Your task to perform on an android device: turn pop-ups off in chrome Image 0: 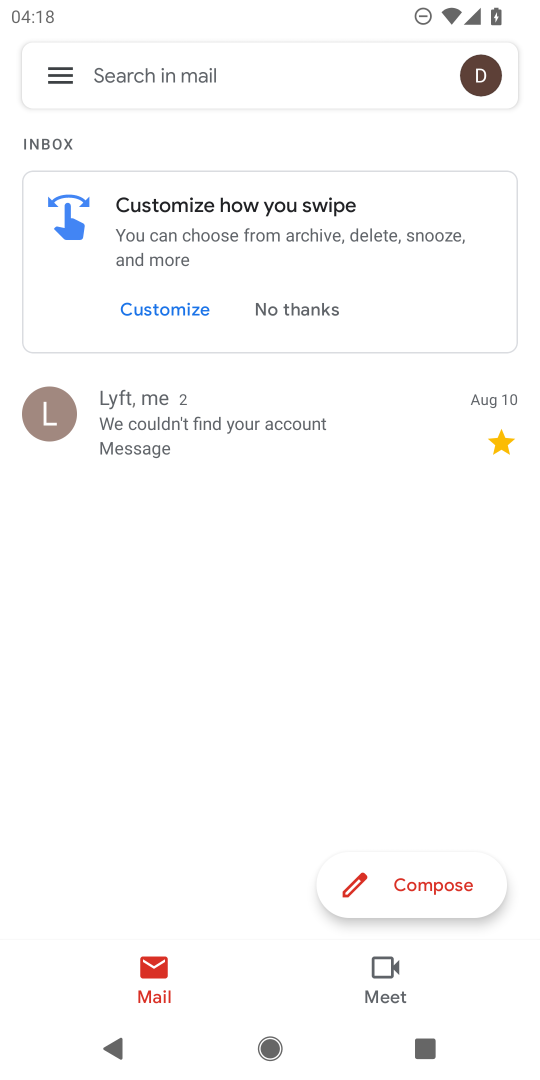
Step 0: press home button
Your task to perform on an android device: turn pop-ups off in chrome Image 1: 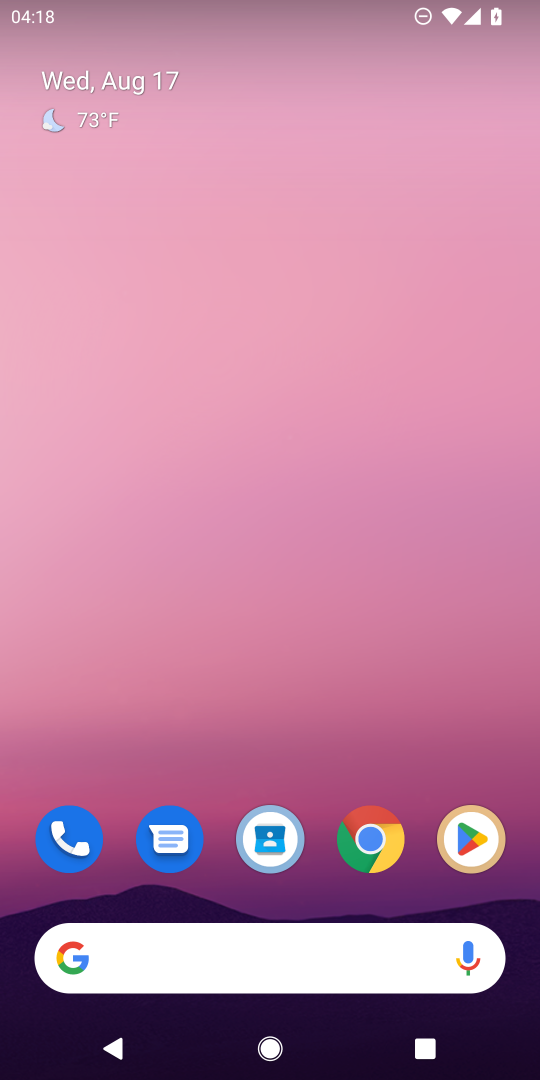
Step 1: drag from (313, 846) to (243, 63)
Your task to perform on an android device: turn pop-ups off in chrome Image 2: 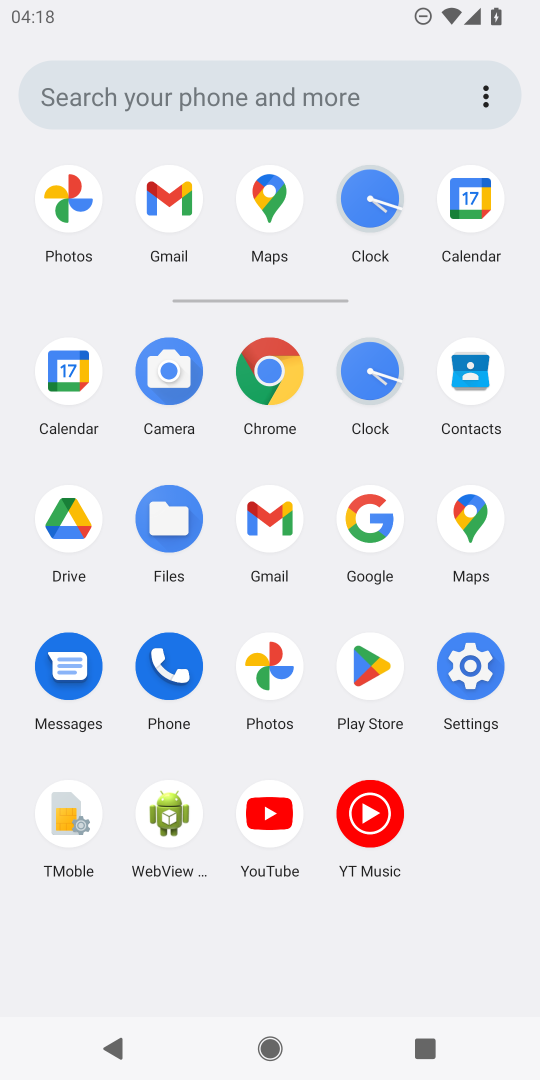
Step 2: click (263, 364)
Your task to perform on an android device: turn pop-ups off in chrome Image 3: 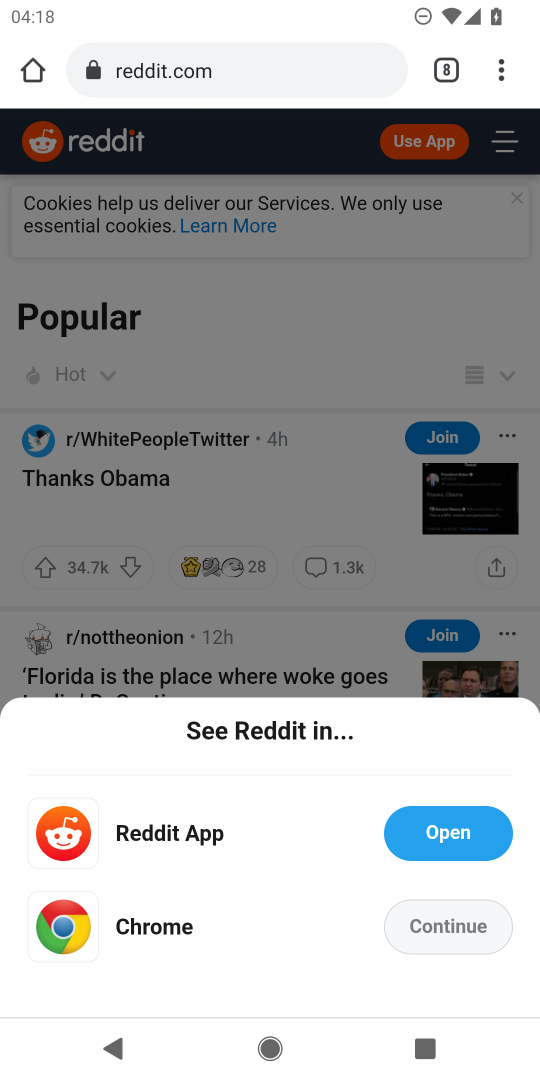
Step 3: click (500, 77)
Your task to perform on an android device: turn pop-ups off in chrome Image 4: 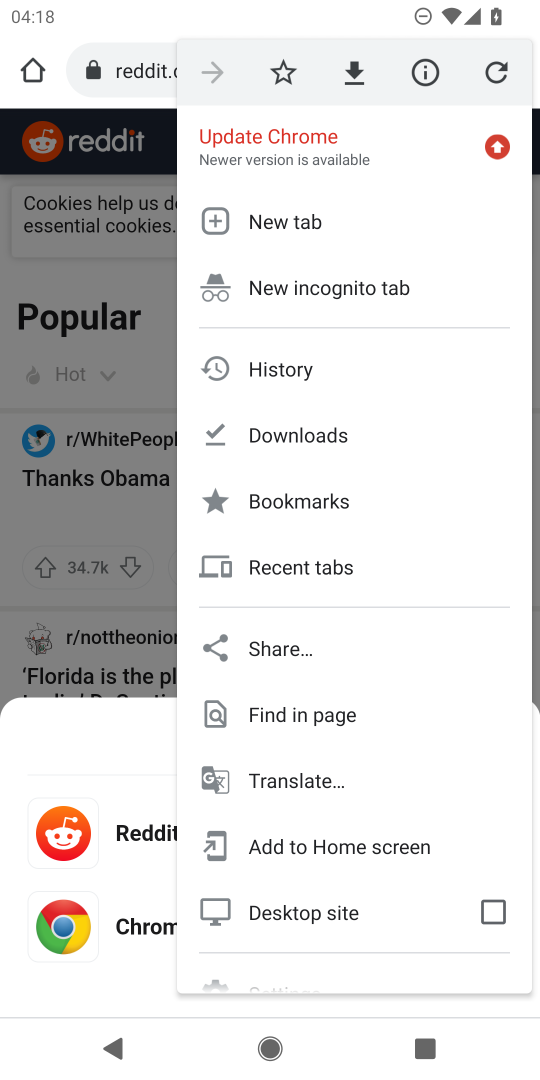
Step 4: drag from (282, 941) to (228, 337)
Your task to perform on an android device: turn pop-ups off in chrome Image 5: 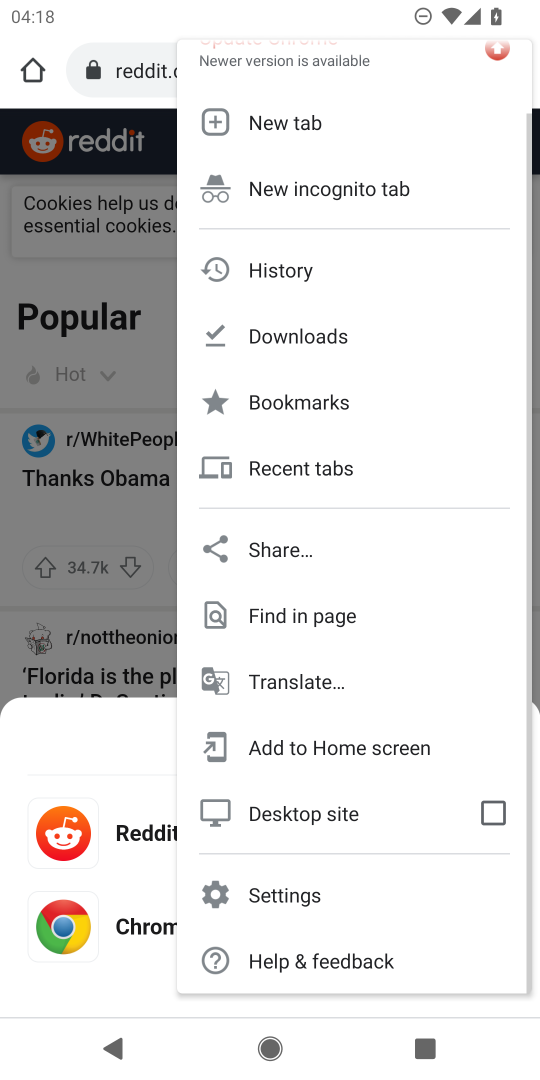
Step 5: click (257, 893)
Your task to perform on an android device: turn pop-ups off in chrome Image 6: 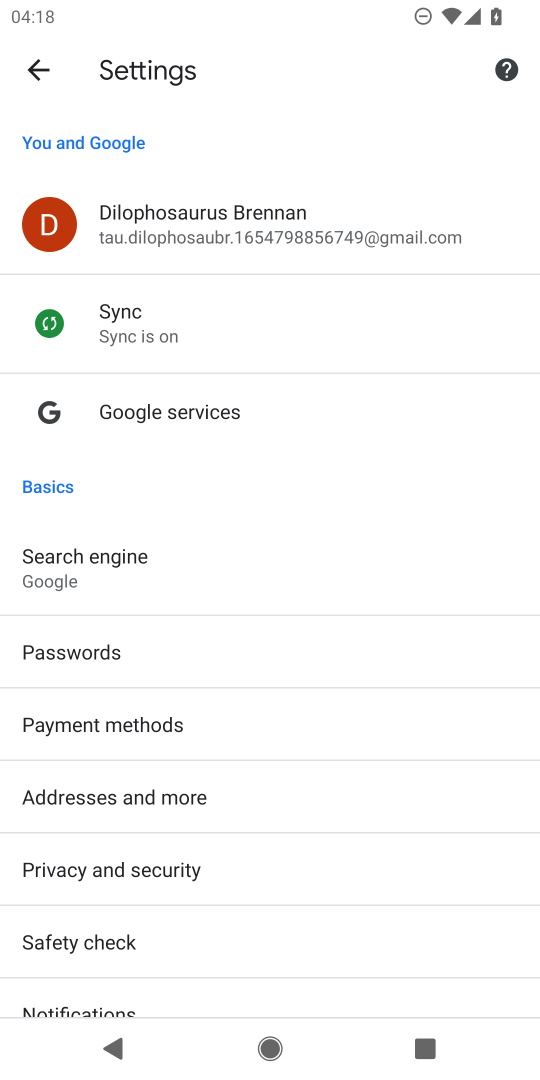
Step 6: drag from (187, 911) to (206, 394)
Your task to perform on an android device: turn pop-ups off in chrome Image 7: 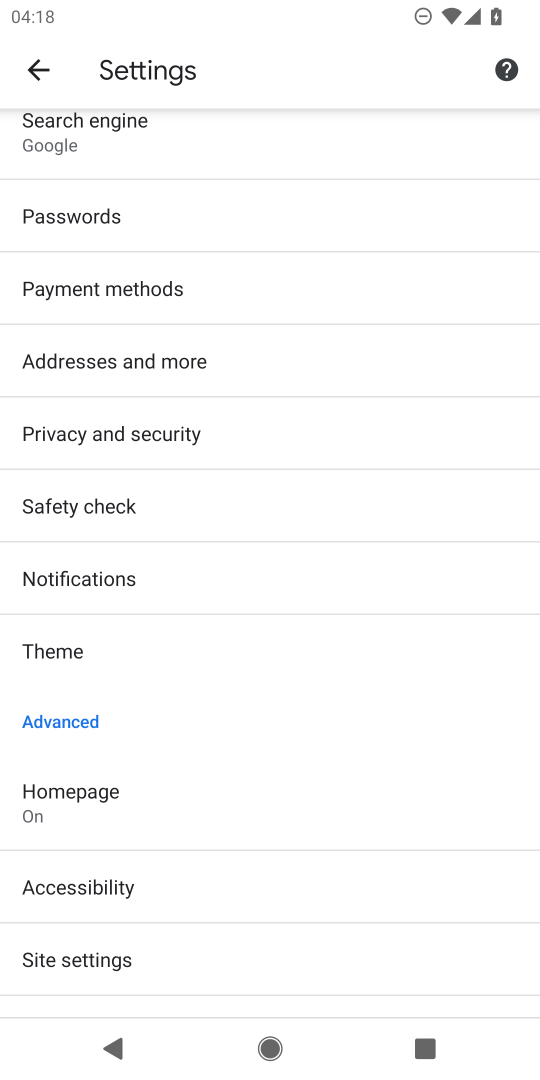
Step 7: drag from (114, 894) to (104, 457)
Your task to perform on an android device: turn pop-ups off in chrome Image 8: 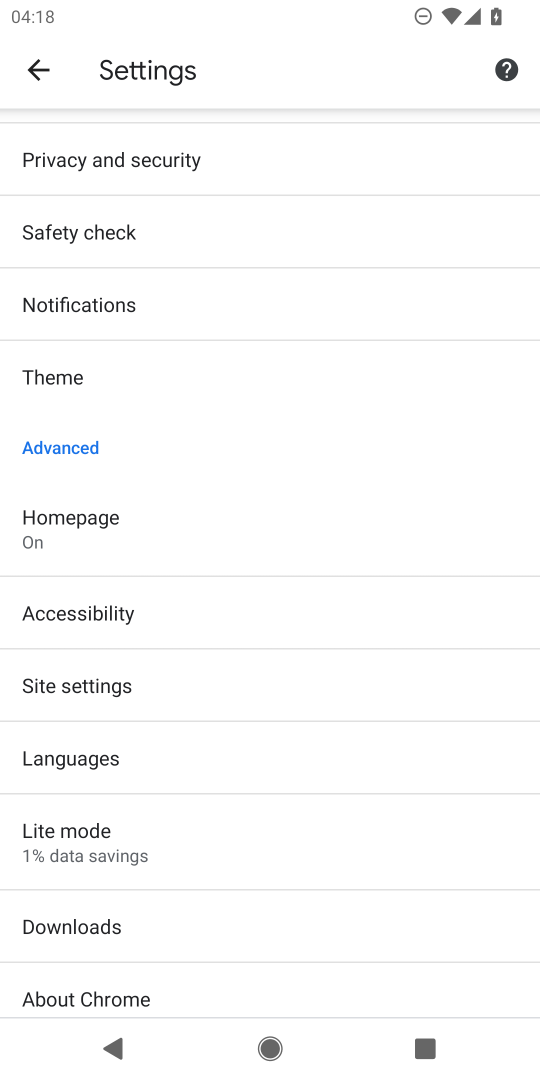
Step 8: click (101, 688)
Your task to perform on an android device: turn pop-ups off in chrome Image 9: 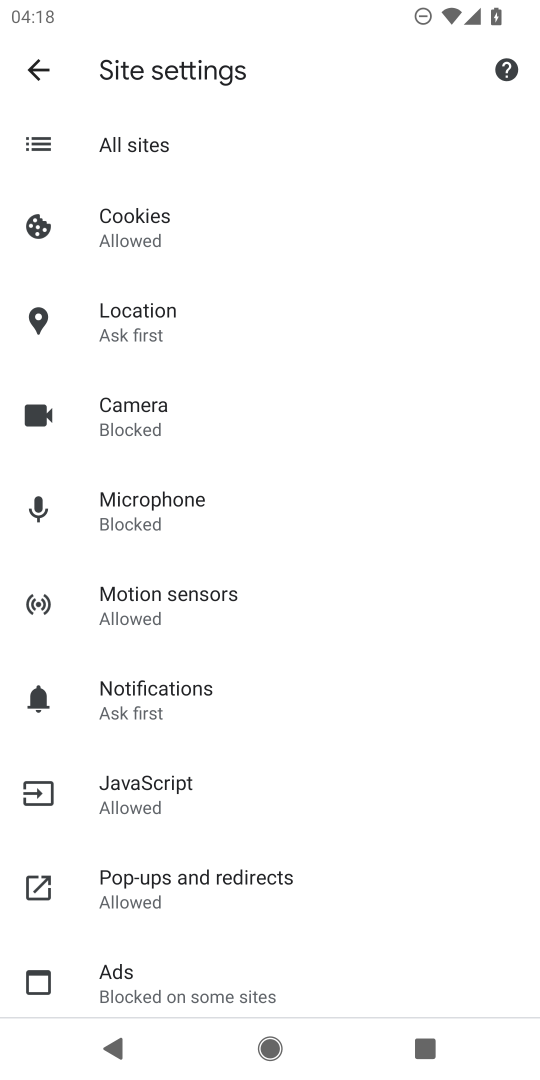
Step 9: click (138, 887)
Your task to perform on an android device: turn pop-ups off in chrome Image 10: 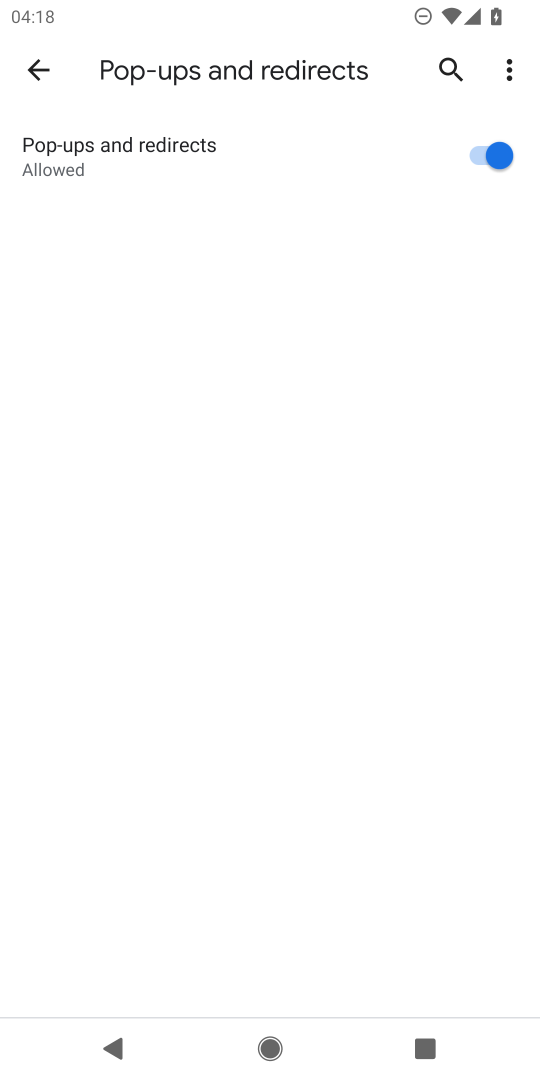
Step 10: click (494, 157)
Your task to perform on an android device: turn pop-ups off in chrome Image 11: 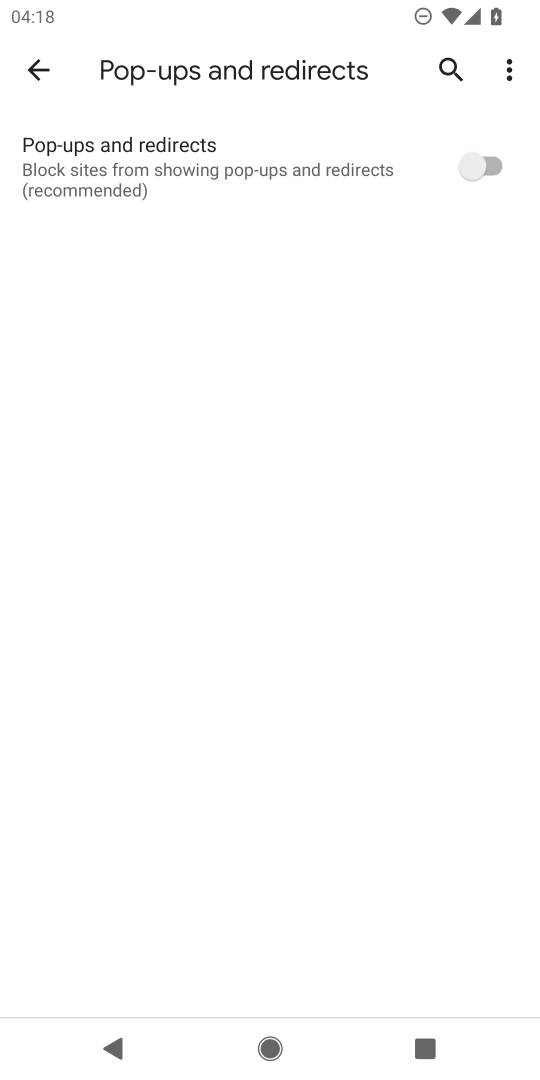
Step 11: task complete